Your task to perform on an android device: What is the recent news? Image 0: 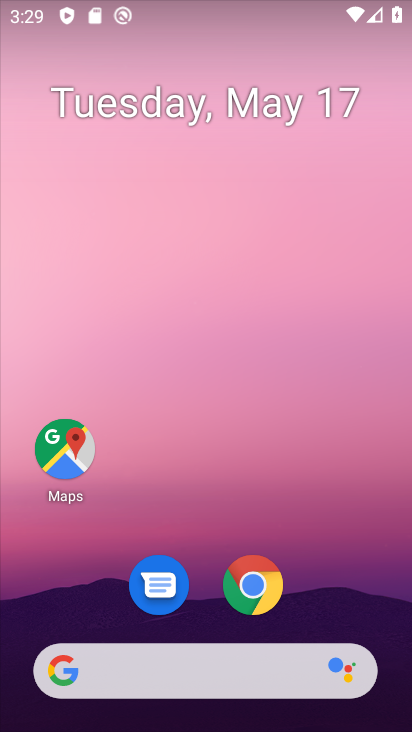
Step 0: click (214, 669)
Your task to perform on an android device: What is the recent news? Image 1: 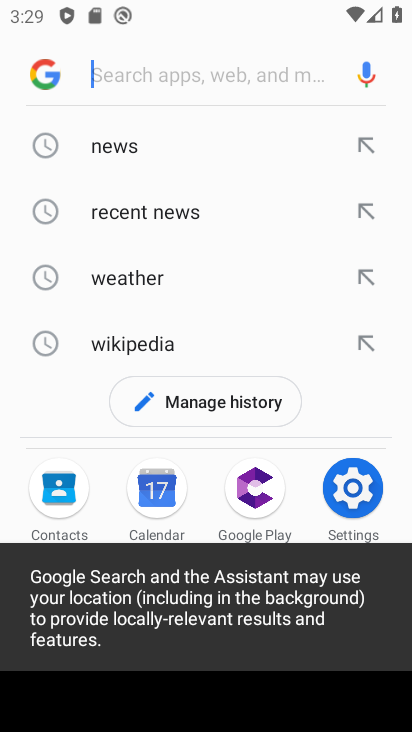
Step 1: click (115, 141)
Your task to perform on an android device: What is the recent news? Image 2: 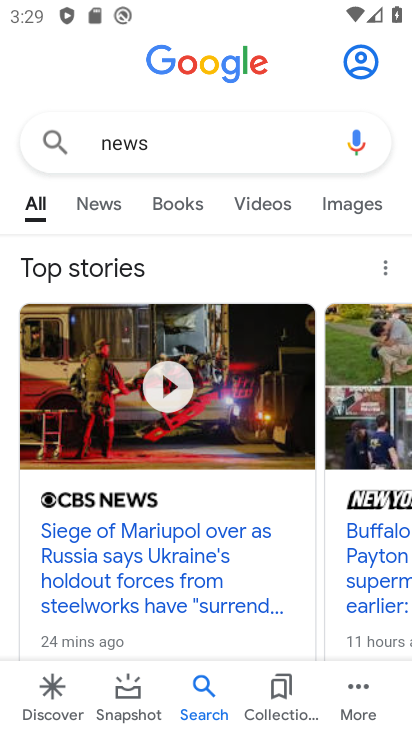
Step 2: task complete